Your task to perform on an android device: turn off translation in the chrome app Image 0: 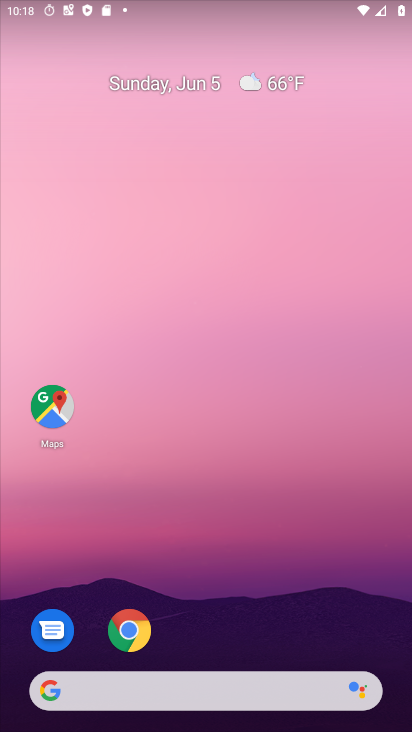
Step 0: click (131, 634)
Your task to perform on an android device: turn off translation in the chrome app Image 1: 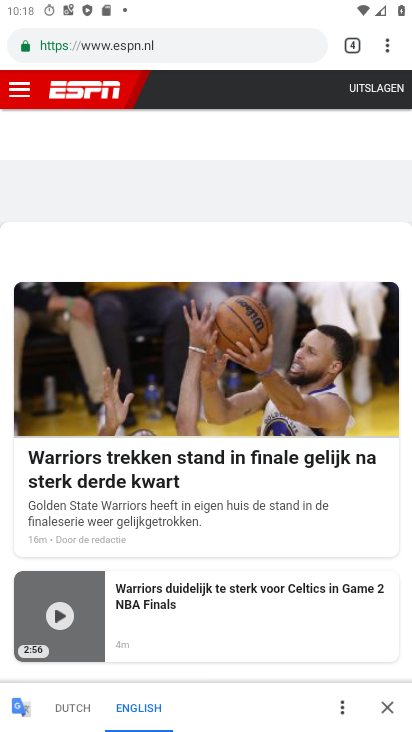
Step 1: click (388, 51)
Your task to perform on an android device: turn off translation in the chrome app Image 2: 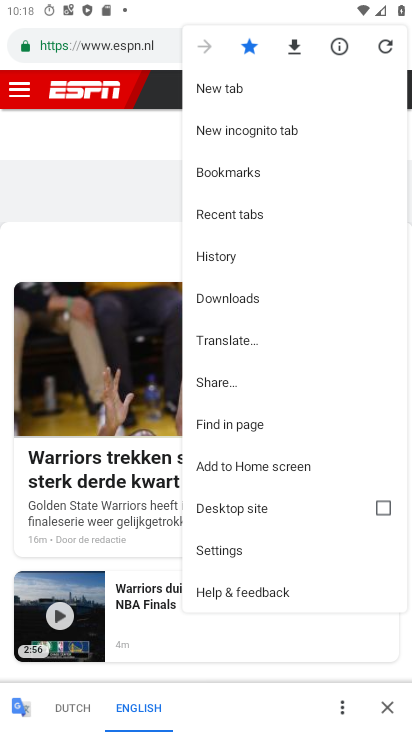
Step 2: click (223, 549)
Your task to perform on an android device: turn off translation in the chrome app Image 3: 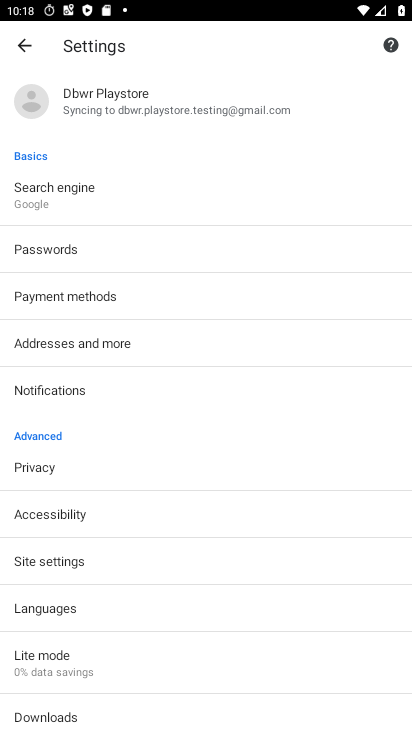
Step 3: click (43, 608)
Your task to perform on an android device: turn off translation in the chrome app Image 4: 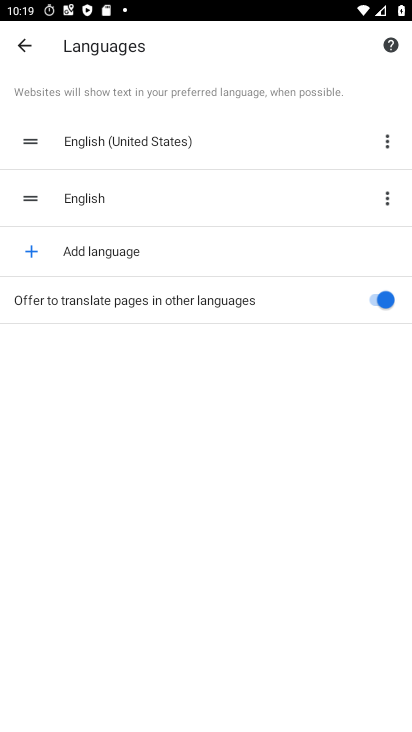
Step 4: click (372, 295)
Your task to perform on an android device: turn off translation in the chrome app Image 5: 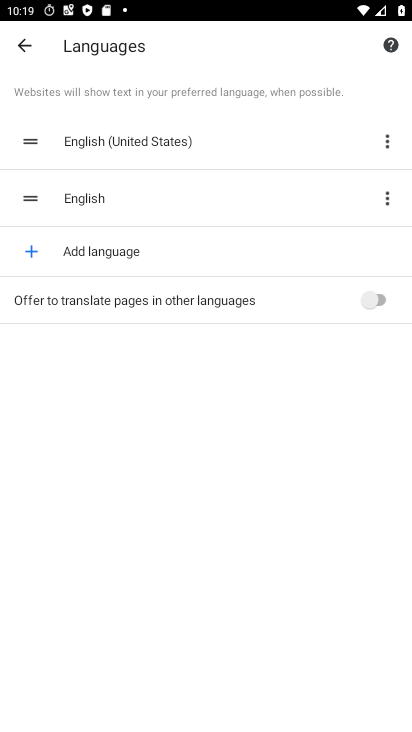
Step 5: task complete